Your task to perform on an android device: delete the emails in spam in the gmail app Image 0: 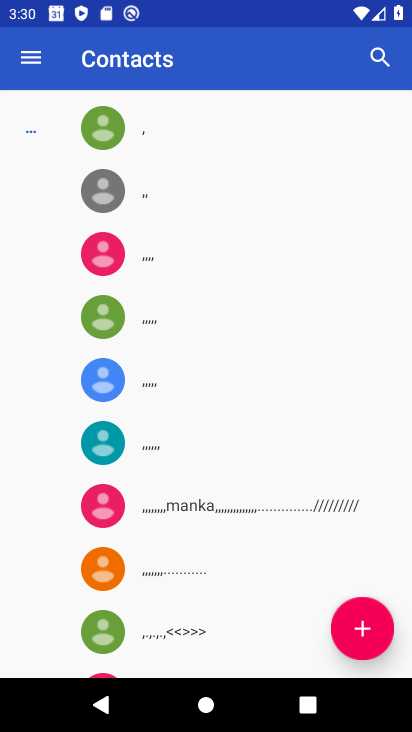
Step 0: press back button
Your task to perform on an android device: delete the emails in spam in the gmail app Image 1: 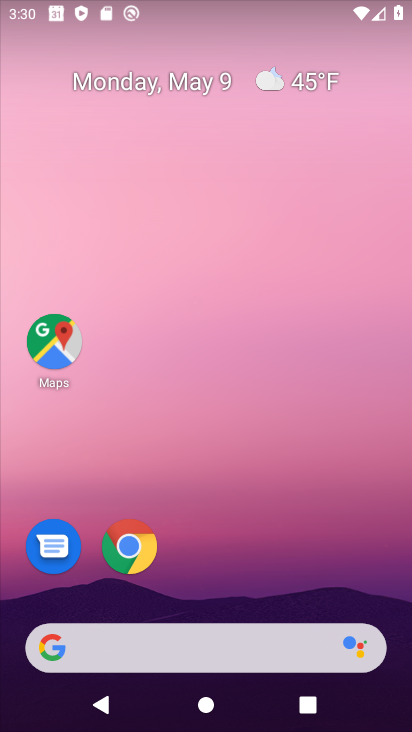
Step 1: drag from (187, 601) to (230, 247)
Your task to perform on an android device: delete the emails in spam in the gmail app Image 2: 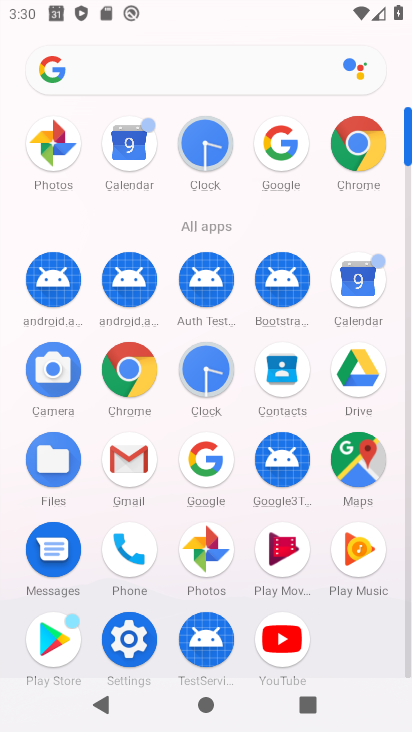
Step 2: click (143, 473)
Your task to perform on an android device: delete the emails in spam in the gmail app Image 3: 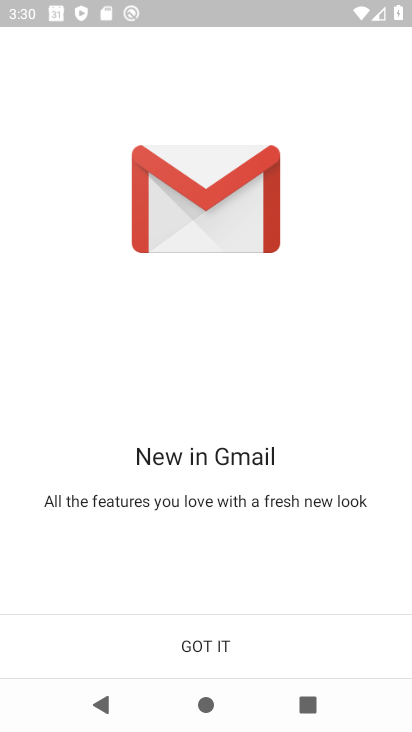
Step 3: click (247, 641)
Your task to perform on an android device: delete the emails in spam in the gmail app Image 4: 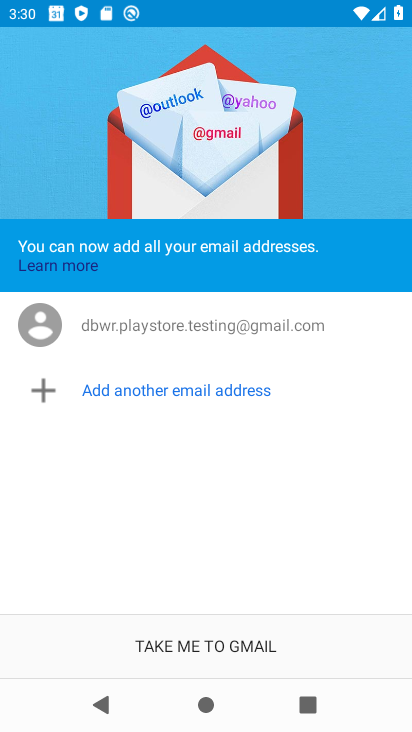
Step 4: click (250, 647)
Your task to perform on an android device: delete the emails in spam in the gmail app Image 5: 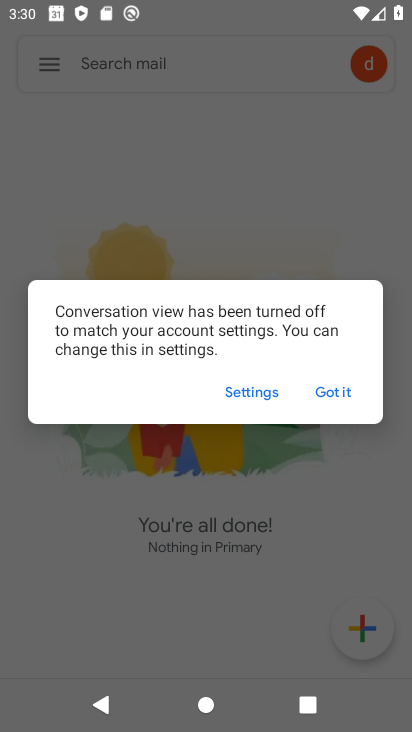
Step 5: click (340, 399)
Your task to perform on an android device: delete the emails in spam in the gmail app Image 6: 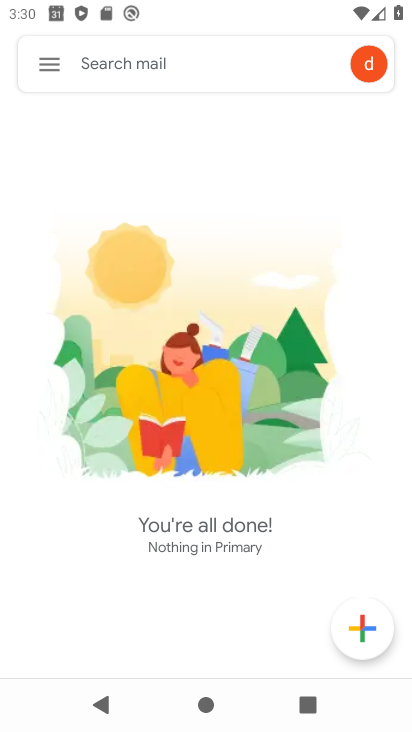
Step 6: click (53, 82)
Your task to perform on an android device: delete the emails in spam in the gmail app Image 7: 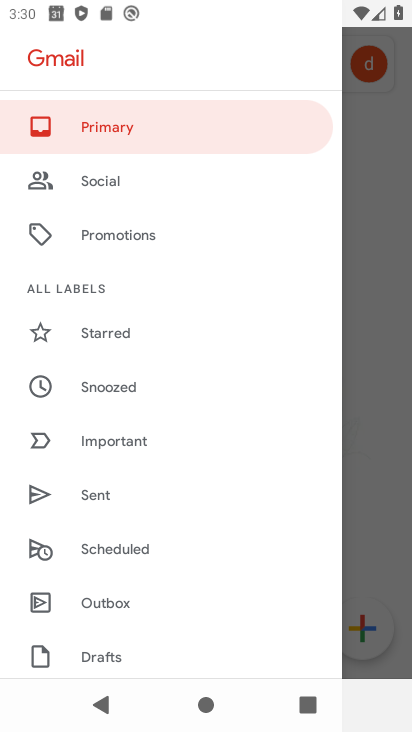
Step 7: drag from (123, 548) to (176, 308)
Your task to perform on an android device: delete the emails in spam in the gmail app Image 8: 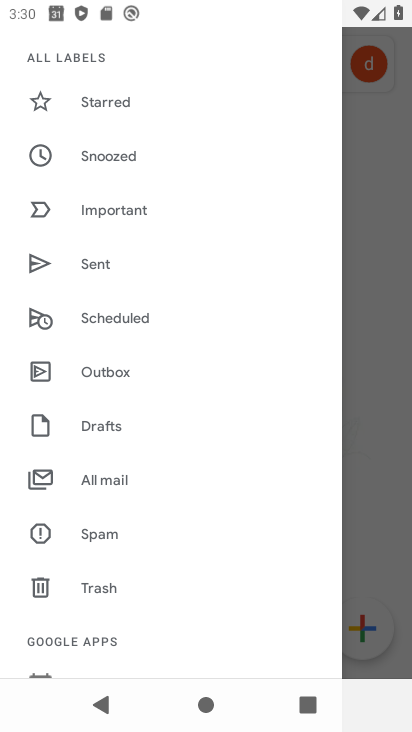
Step 8: drag from (108, 607) to (171, 448)
Your task to perform on an android device: delete the emails in spam in the gmail app Image 9: 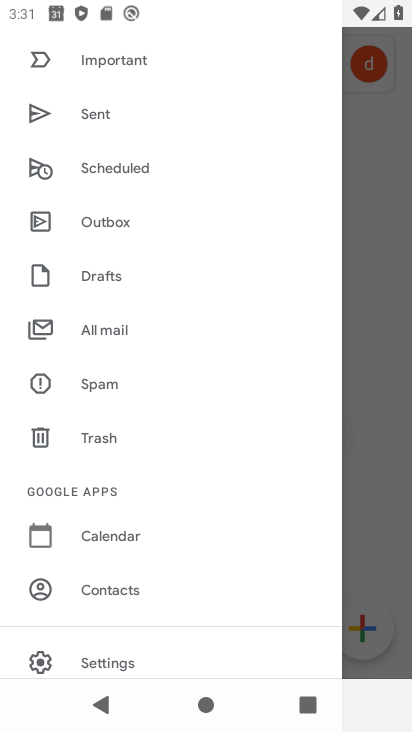
Step 9: click (123, 380)
Your task to perform on an android device: delete the emails in spam in the gmail app Image 10: 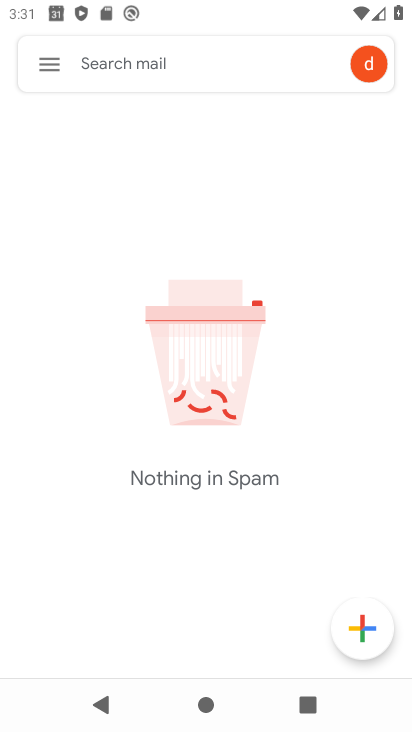
Step 10: task complete